Your task to perform on an android device: Go to internet settings Image 0: 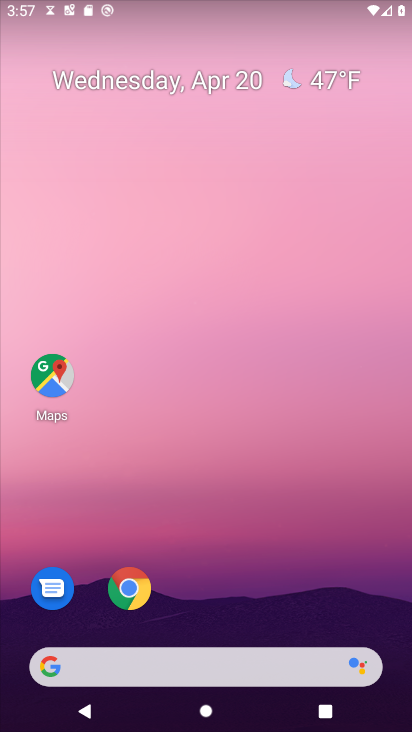
Step 0: drag from (294, 629) to (298, 78)
Your task to perform on an android device: Go to internet settings Image 1: 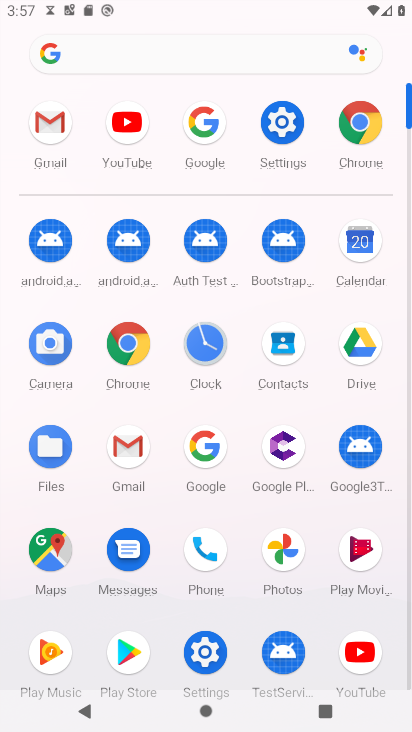
Step 1: click (287, 138)
Your task to perform on an android device: Go to internet settings Image 2: 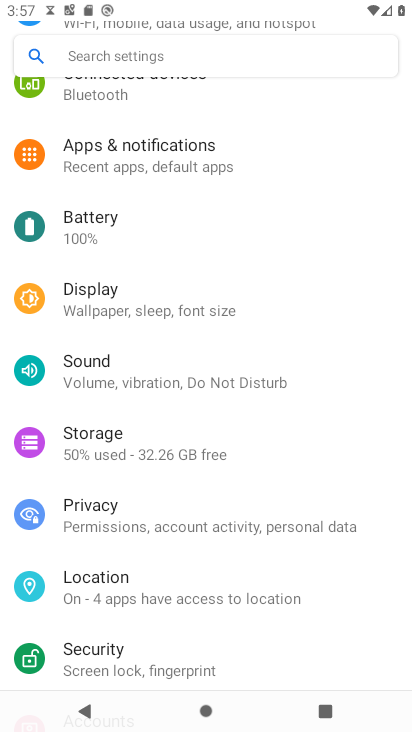
Step 2: drag from (193, 272) to (210, 337)
Your task to perform on an android device: Go to internet settings Image 3: 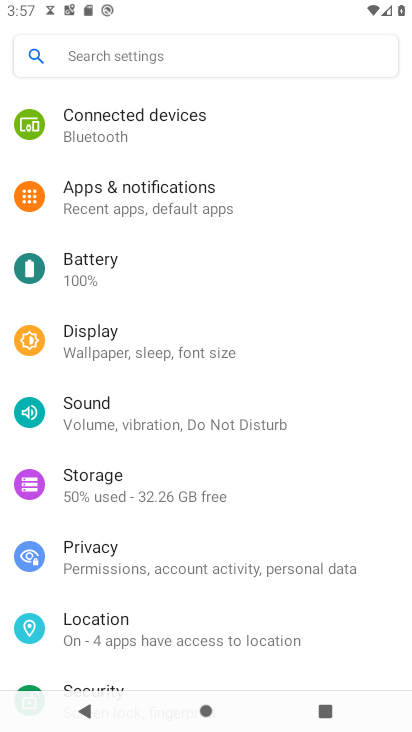
Step 3: drag from (189, 271) to (195, 315)
Your task to perform on an android device: Go to internet settings Image 4: 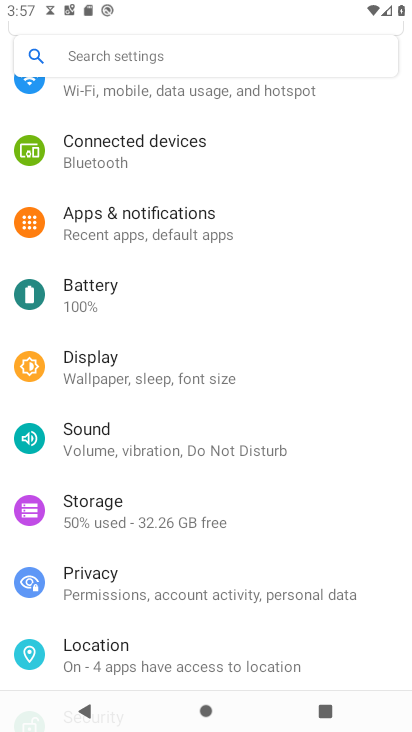
Step 4: drag from (184, 283) to (217, 357)
Your task to perform on an android device: Go to internet settings Image 5: 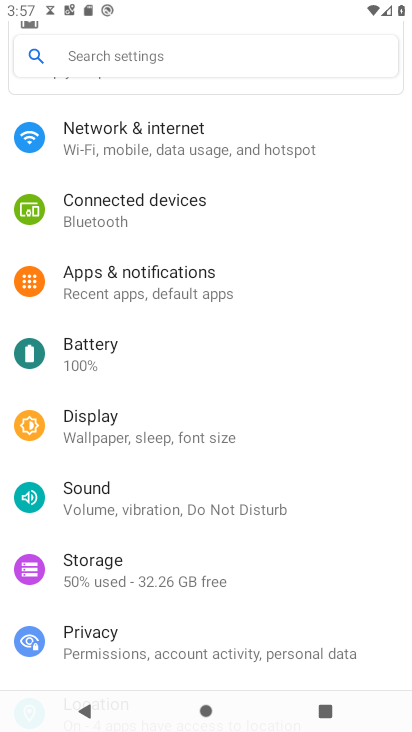
Step 5: drag from (197, 312) to (241, 412)
Your task to perform on an android device: Go to internet settings Image 6: 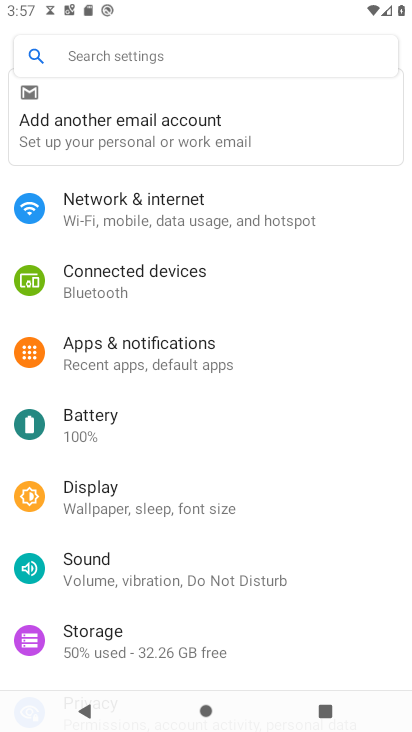
Step 6: click (206, 196)
Your task to perform on an android device: Go to internet settings Image 7: 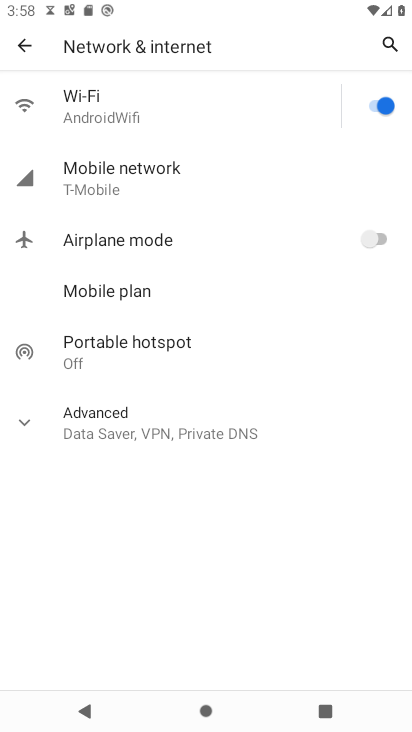
Step 7: click (137, 178)
Your task to perform on an android device: Go to internet settings Image 8: 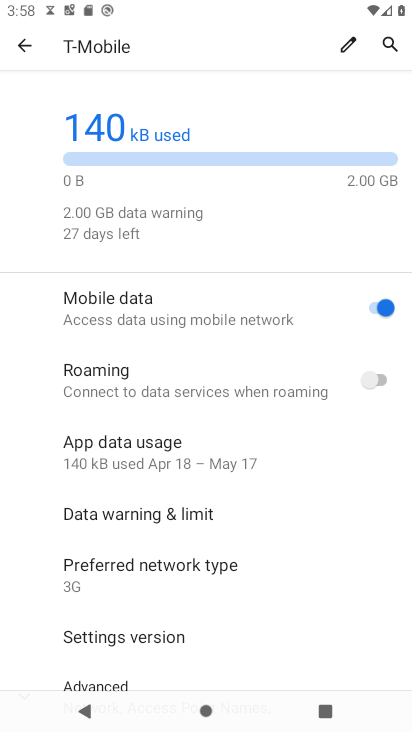
Step 8: task complete